Your task to perform on an android device: Go to calendar. Show me events next week Image 0: 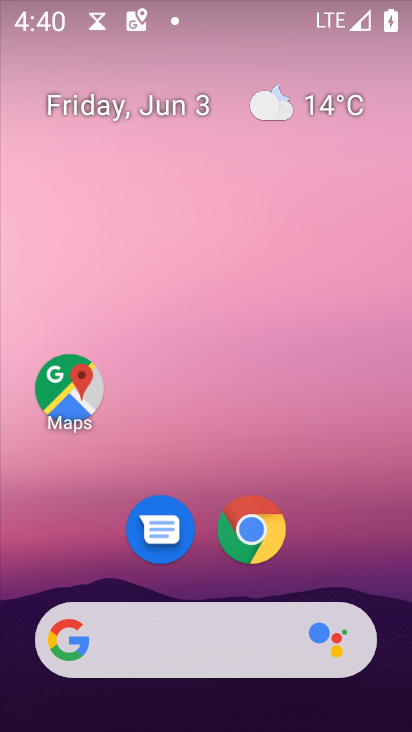
Step 0: drag from (347, 566) to (354, 61)
Your task to perform on an android device: Go to calendar. Show me events next week Image 1: 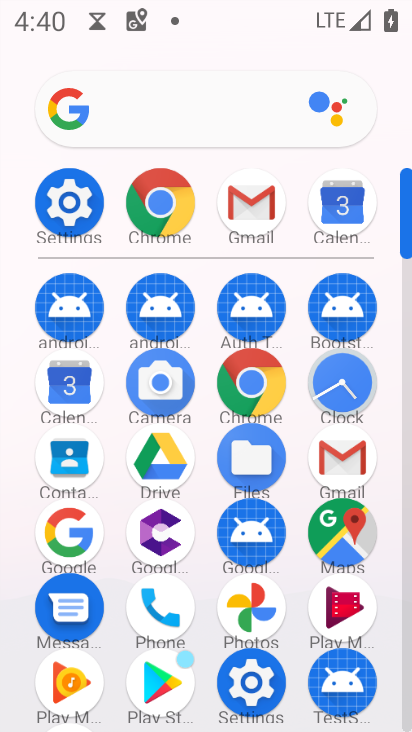
Step 1: click (79, 399)
Your task to perform on an android device: Go to calendar. Show me events next week Image 2: 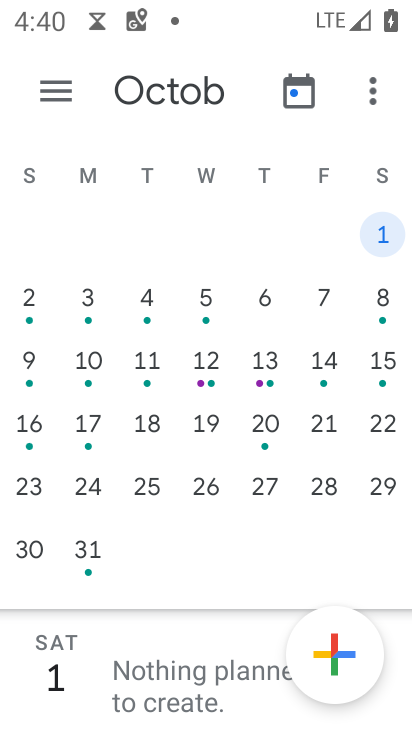
Step 2: click (382, 326)
Your task to perform on an android device: Go to calendar. Show me events next week Image 3: 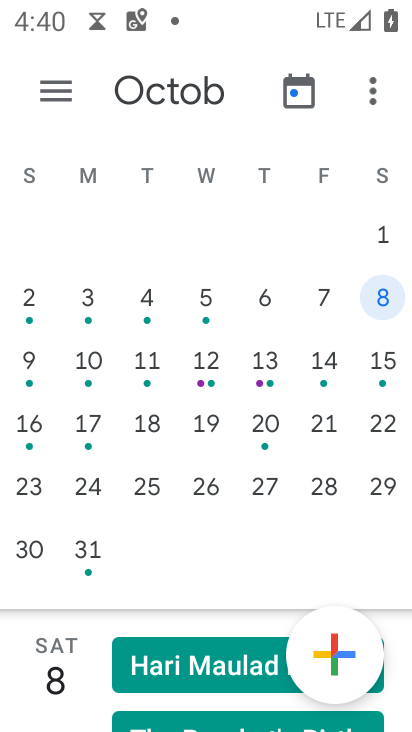
Step 3: task complete